Your task to perform on an android device: Show me recent news Image 0: 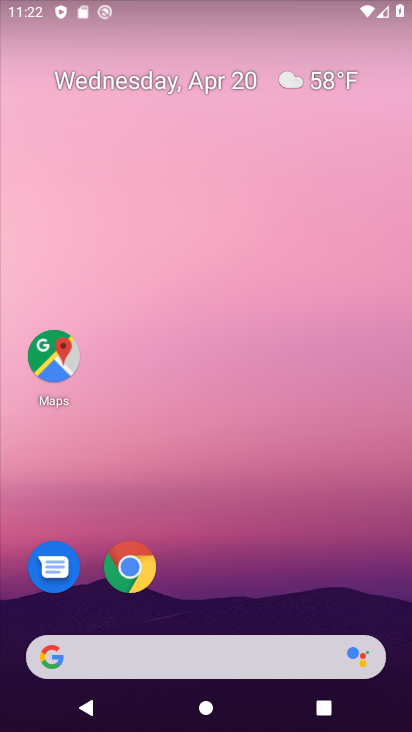
Step 0: drag from (345, 548) to (303, 126)
Your task to perform on an android device: Show me recent news Image 1: 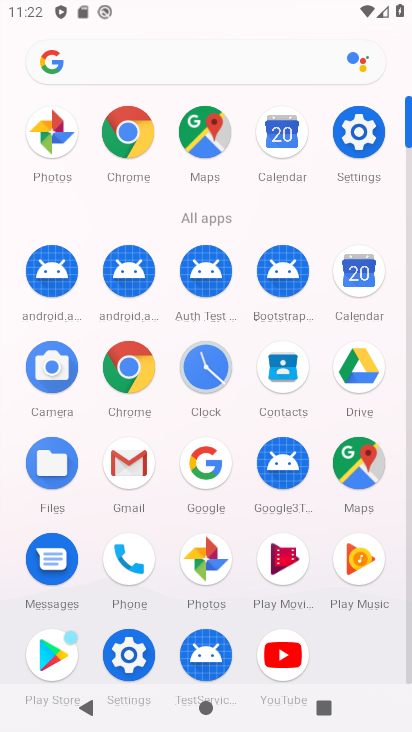
Step 1: click (126, 145)
Your task to perform on an android device: Show me recent news Image 2: 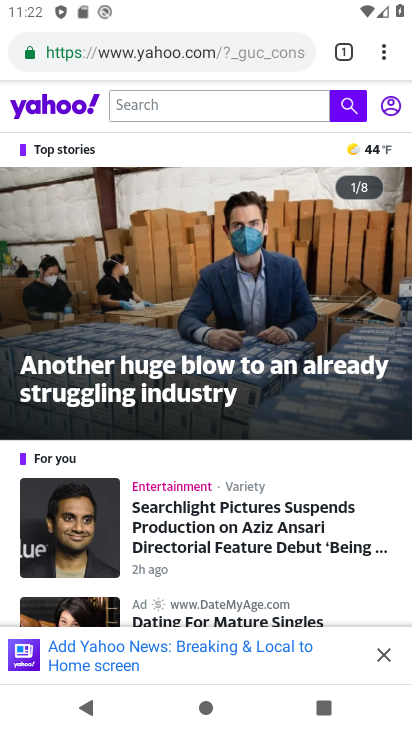
Step 2: click (269, 51)
Your task to perform on an android device: Show me recent news Image 3: 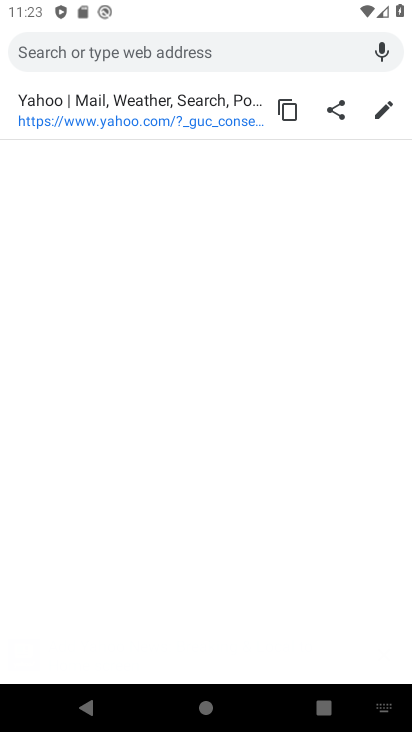
Step 3: type "recent news"
Your task to perform on an android device: Show me recent news Image 4: 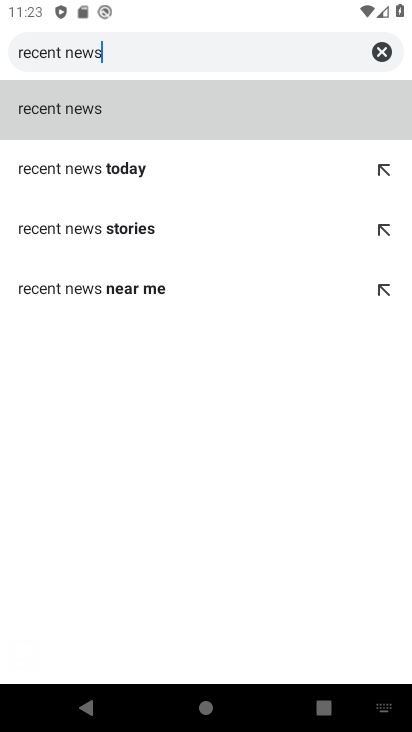
Step 4: click (156, 112)
Your task to perform on an android device: Show me recent news Image 5: 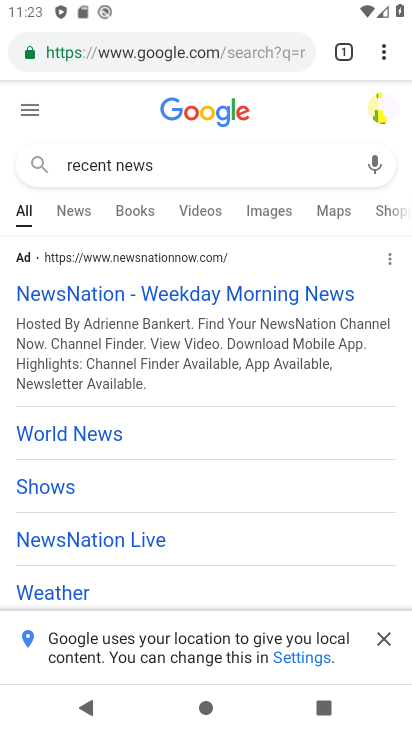
Step 5: task complete